Your task to perform on an android device: turn on sleep mode Image 0: 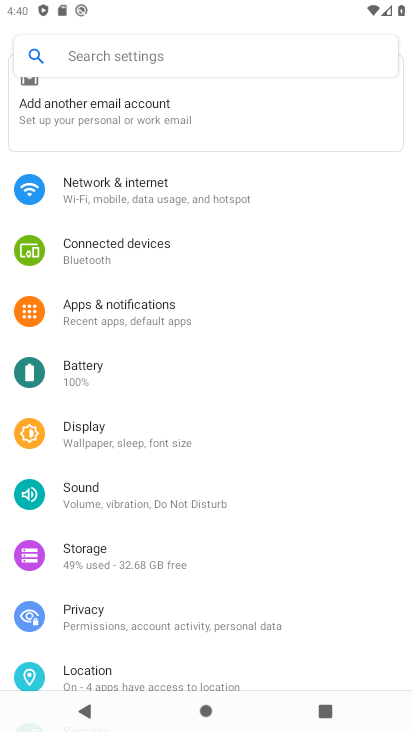
Step 0: press home button
Your task to perform on an android device: turn on sleep mode Image 1: 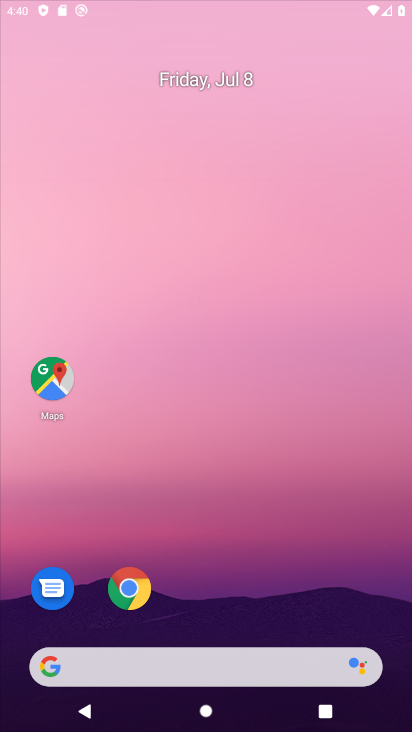
Step 1: drag from (311, 538) to (349, 10)
Your task to perform on an android device: turn on sleep mode Image 2: 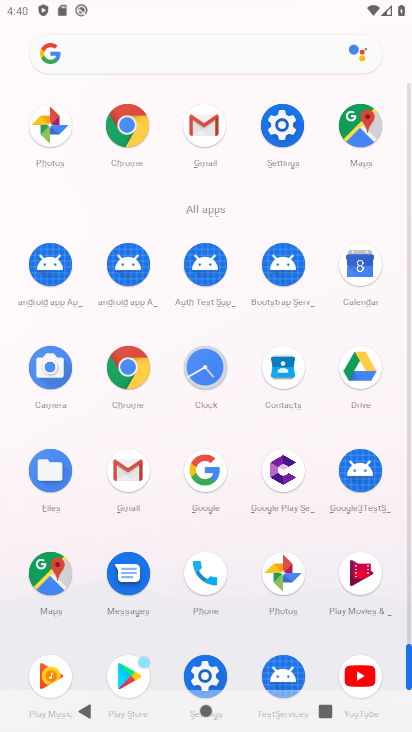
Step 2: drag from (235, 595) to (344, 47)
Your task to perform on an android device: turn on sleep mode Image 3: 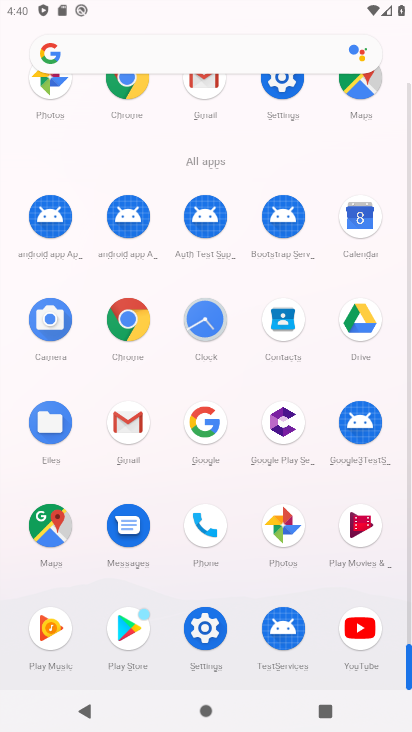
Step 3: click (213, 635)
Your task to perform on an android device: turn on sleep mode Image 4: 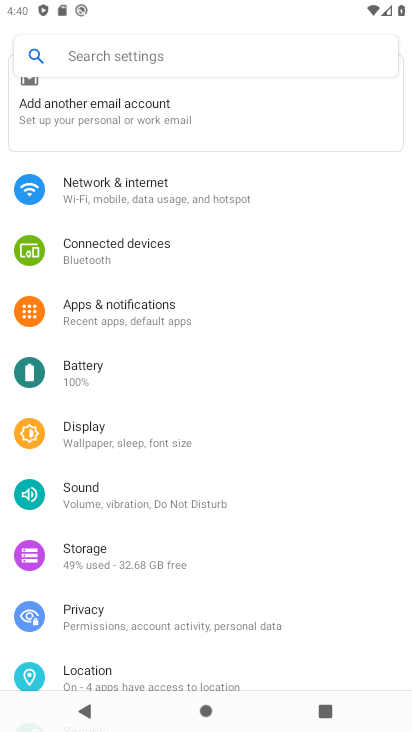
Step 4: click (202, 56)
Your task to perform on an android device: turn on sleep mode Image 5: 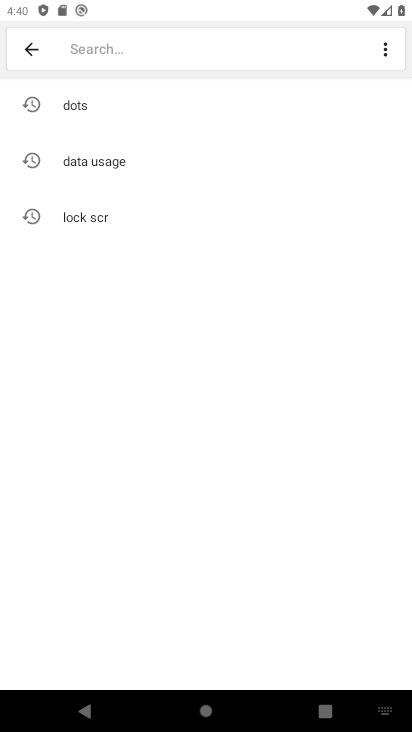
Step 5: type "sleep mode"
Your task to perform on an android device: turn on sleep mode Image 6: 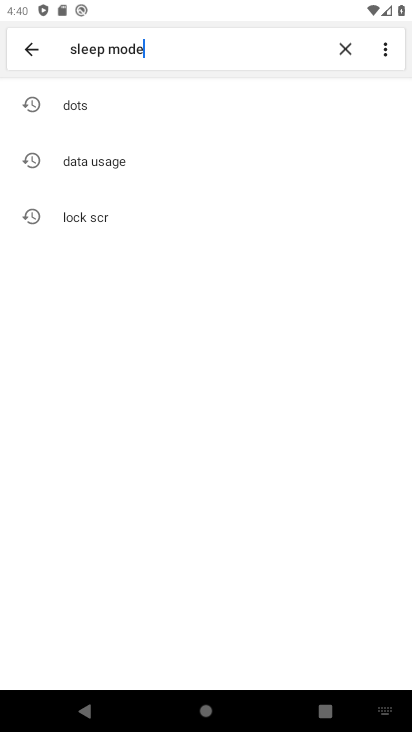
Step 6: type ""
Your task to perform on an android device: turn on sleep mode Image 7: 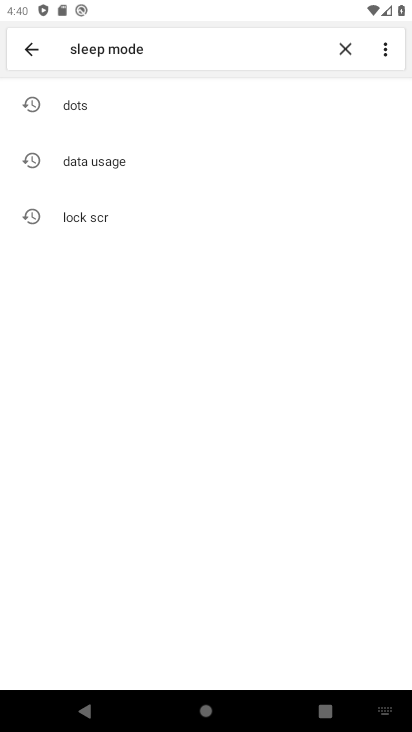
Step 7: press enter
Your task to perform on an android device: turn on sleep mode Image 8: 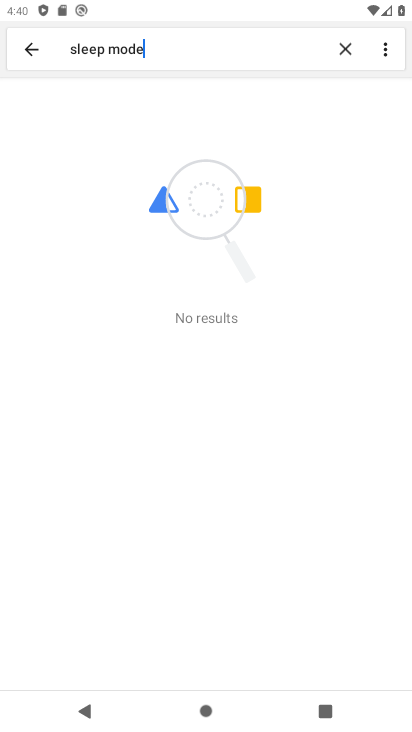
Step 8: click (263, 40)
Your task to perform on an android device: turn on sleep mode Image 9: 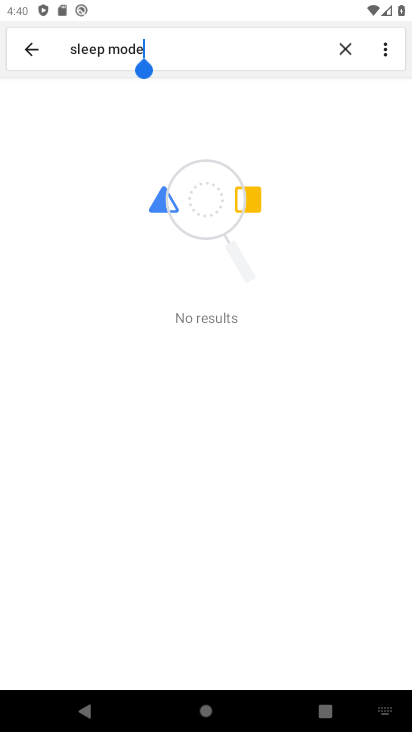
Step 9: press back button
Your task to perform on an android device: turn on sleep mode Image 10: 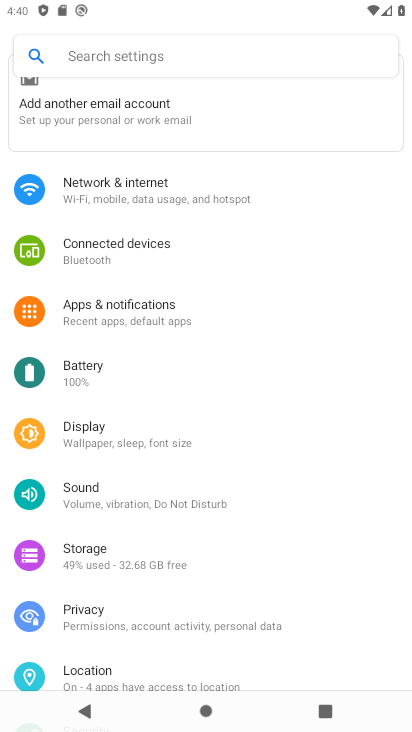
Step 10: click (312, 51)
Your task to perform on an android device: turn on sleep mode Image 11: 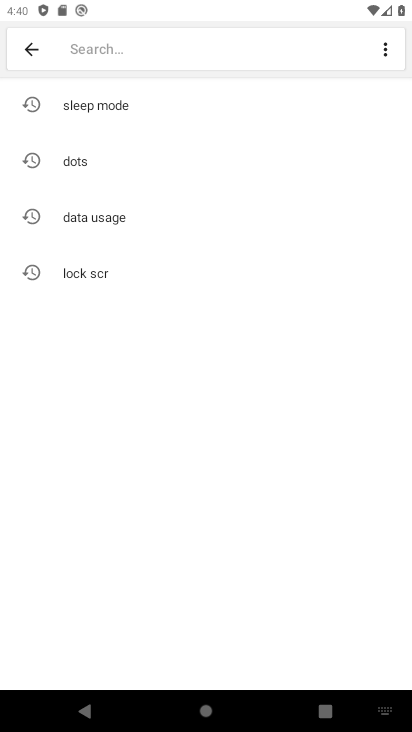
Step 11: type ""
Your task to perform on an android device: turn on sleep mode Image 12: 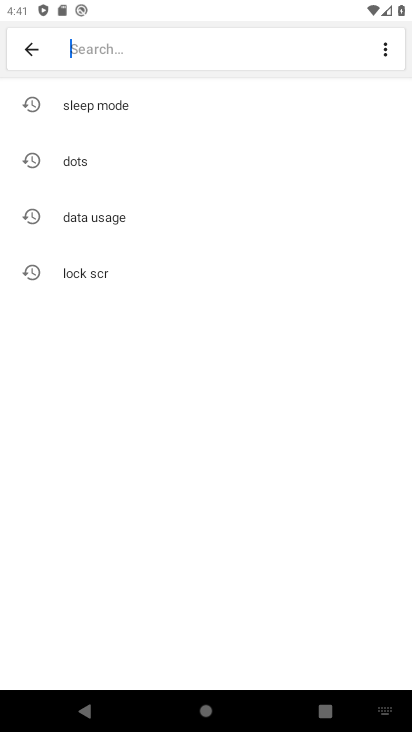
Step 12: type "sleep"
Your task to perform on an android device: turn on sleep mode Image 13: 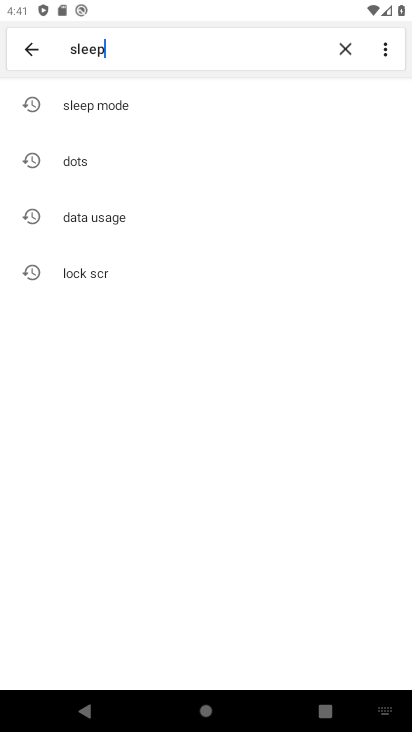
Step 13: type ""
Your task to perform on an android device: turn on sleep mode Image 14: 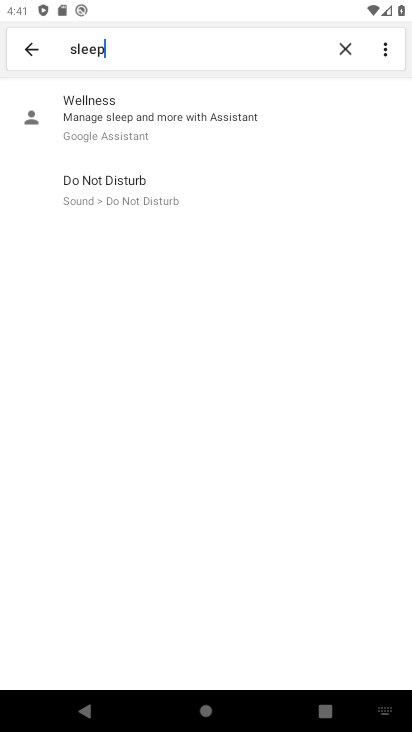
Step 14: press enter
Your task to perform on an android device: turn on sleep mode Image 15: 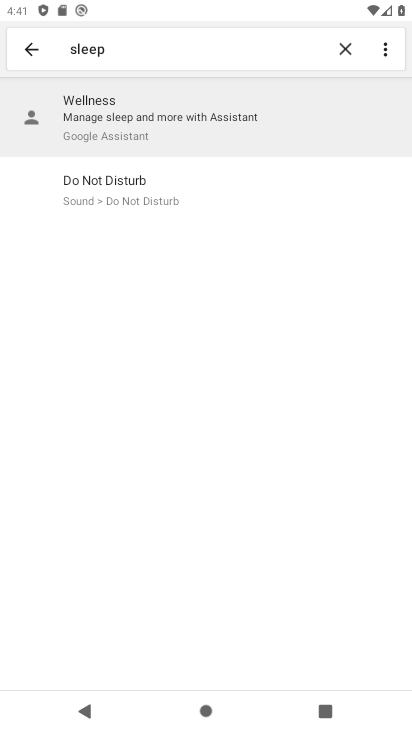
Step 15: click (150, 172)
Your task to perform on an android device: turn on sleep mode Image 16: 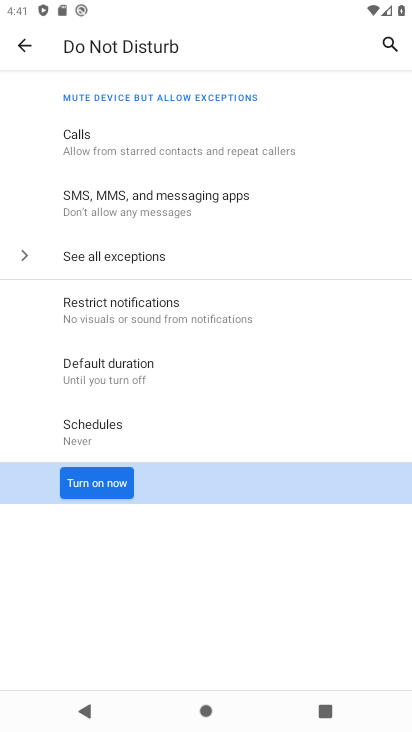
Step 16: task complete